Your task to perform on an android device: Search for Mexican restaurants on Maps Image 0: 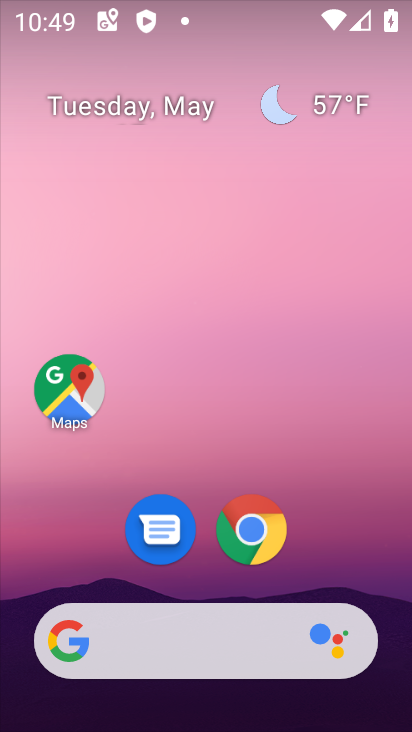
Step 0: click (71, 382)
Your task to perform on an android device: Search for Mexican restaurants on Maps Image 1: 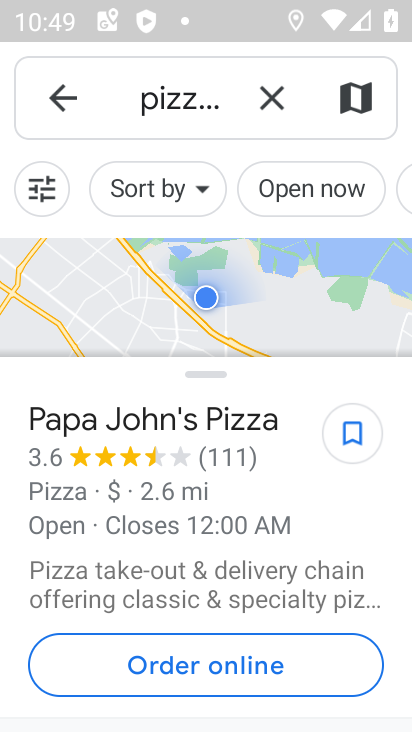
Step 1: click (270, 75)
Your task to perform on an android device: Search for Mexican restaurants on Maps Image 2: 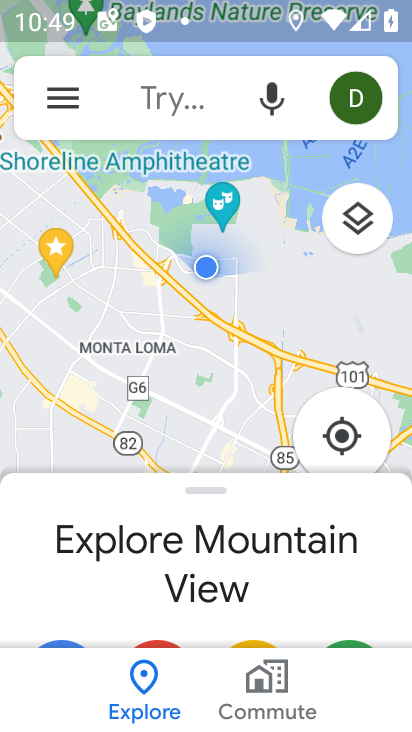
Step 2: click (212, 98)
Your task to perform on an android device: Search for Mexican restaurants on Maps Image 3: 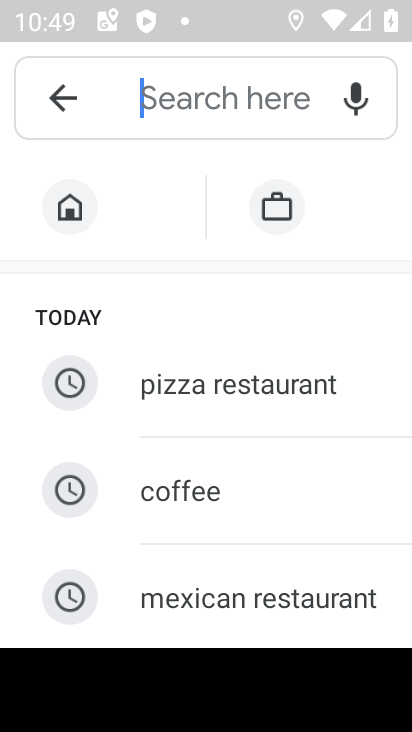
Step 3: click (243, 590)
Your task to perform on an android device: Search for Mexican restaurants on Maps Image 4: 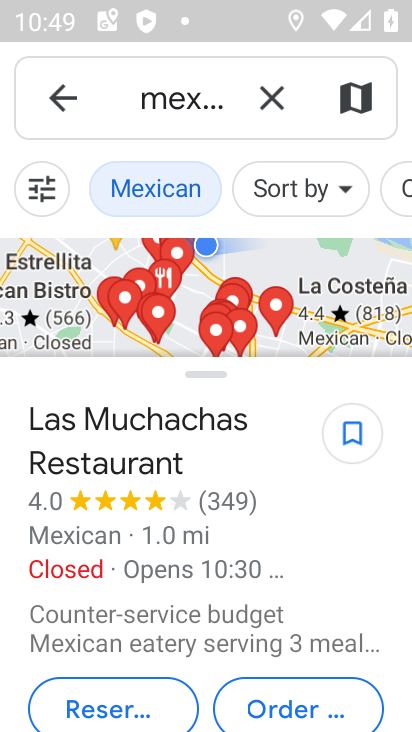
Step 4: task complete